Your task to perform on an android device: What's the weather going to be tomorrow? Image 0: 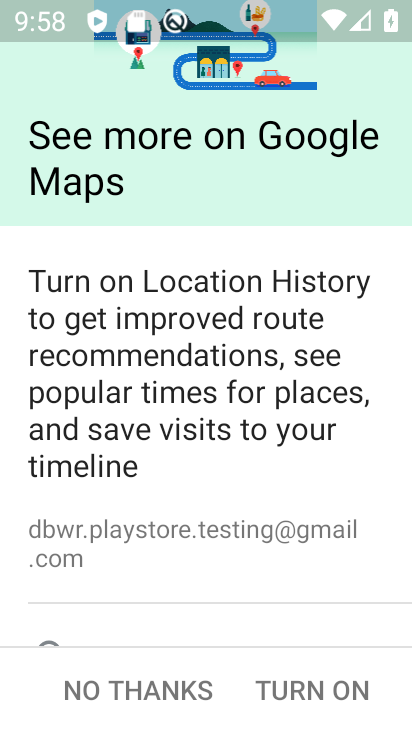
Step 0: press home button
Your task to perform on an android device: What's the weather going to be tomorrow? Image 1: 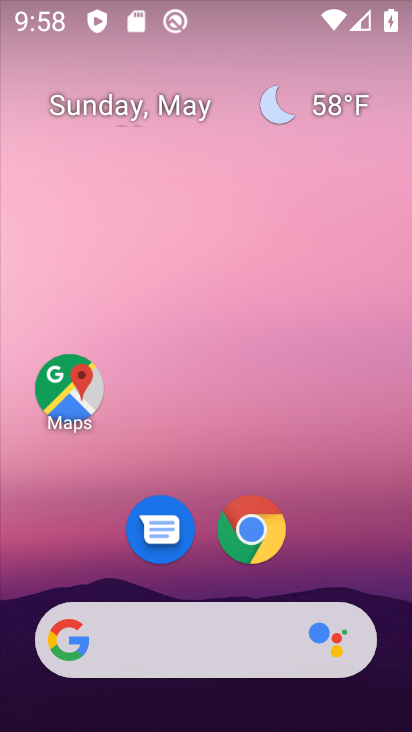
Step 1: drag from (182, 580) to (230, 3)
Your task to perform on an android device: What's the weather going to be tomorrow? Image 2: 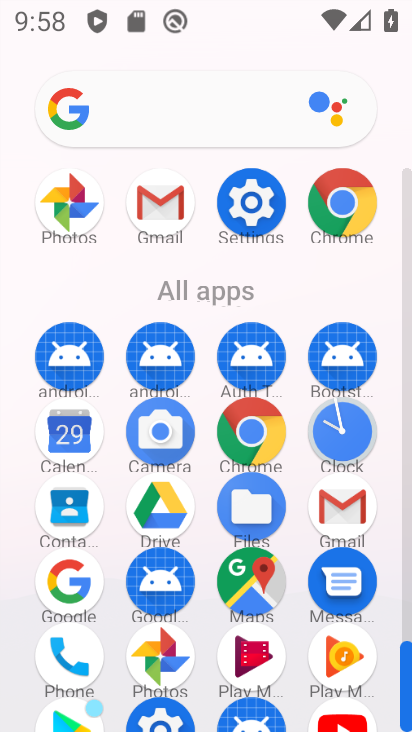
Step 2: click (201, 124)
Your task to perform on an android device: What's the weather going to be tomorrow? Image 3: 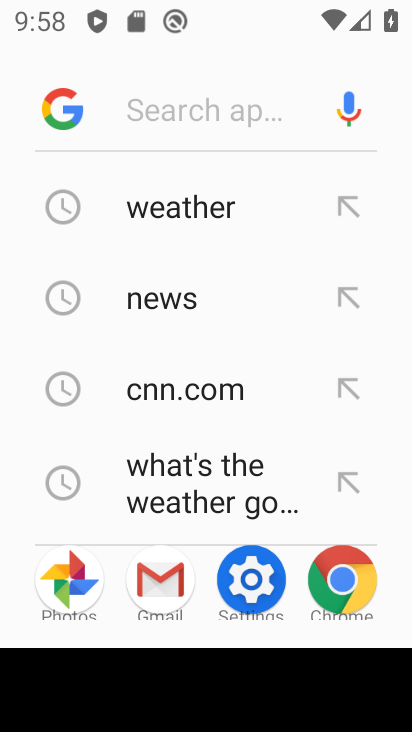
Step 3: click (192, 186)
Your task to perform on an android device: What's the weather going to be tomorrow? Image 4: 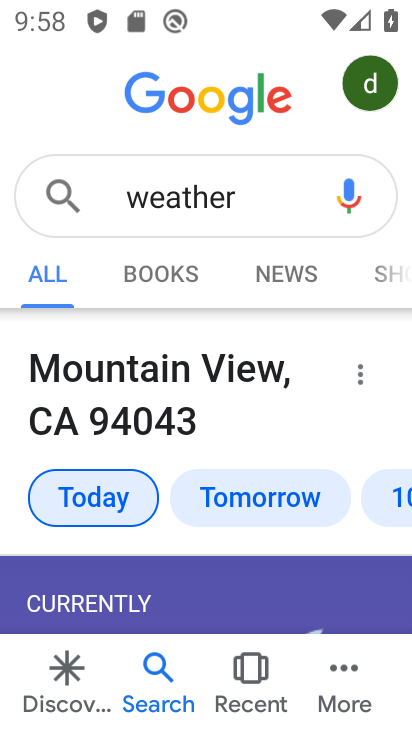
Step 4: click (233, 494)
Your task to perform on an android device: What's the weather going to be tomorrow? Image 5: 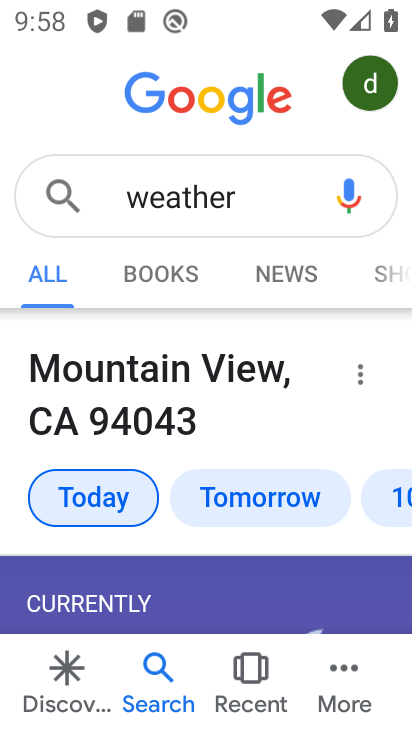
Step 5: click (278, 500)
Your task to perform on an android device: What's the weather going to be tomorrow? Image 6: 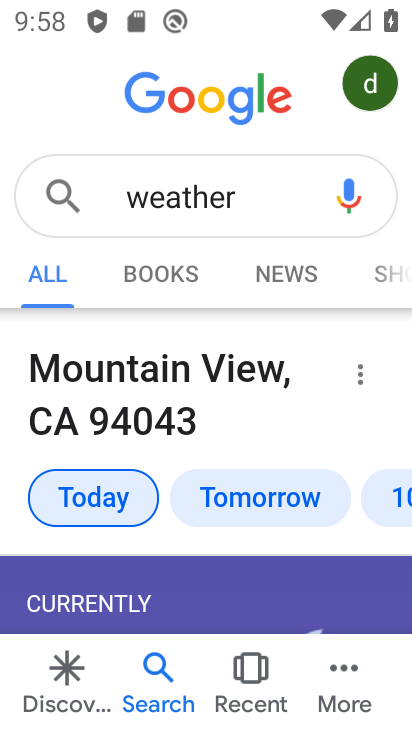
Step 6: drag from (272, 524) to (254, 363)
Your task to perform on an android device: What's the weather going to be tomorrow? Image 7: 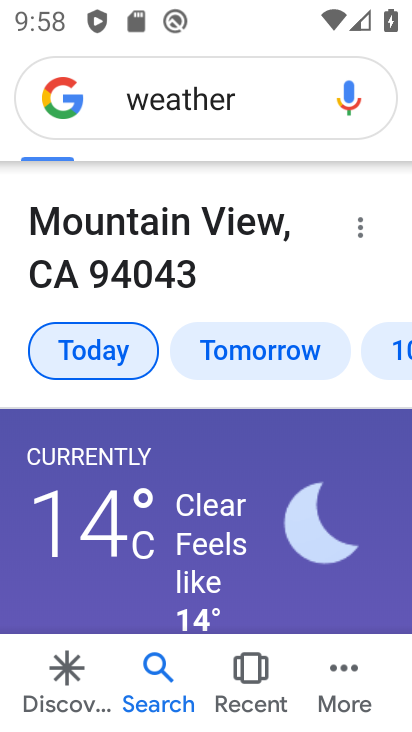
Step 7: click (253, 355)
Your task to perform on an android device: What's the weather going to be tomorrow? Image 8: 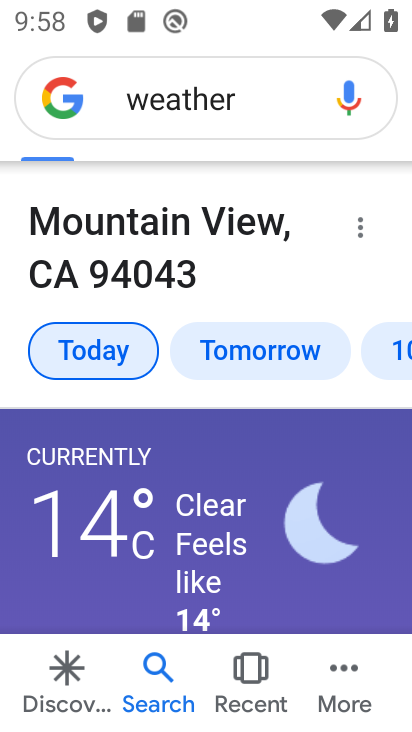
Step 8: click (254, 364)
Your task to perform on an android device: What's the weather going to be tomorrow? Image 9: 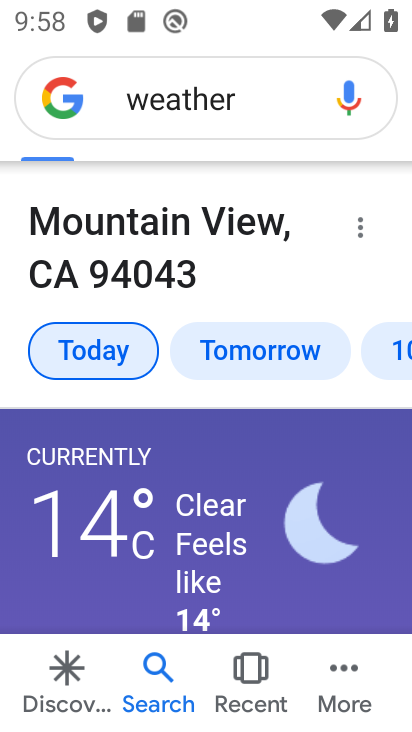
Step 9: click (260, 351)
Your task to perform on an android device: What's the weather going to be tomorrow? Image 10: 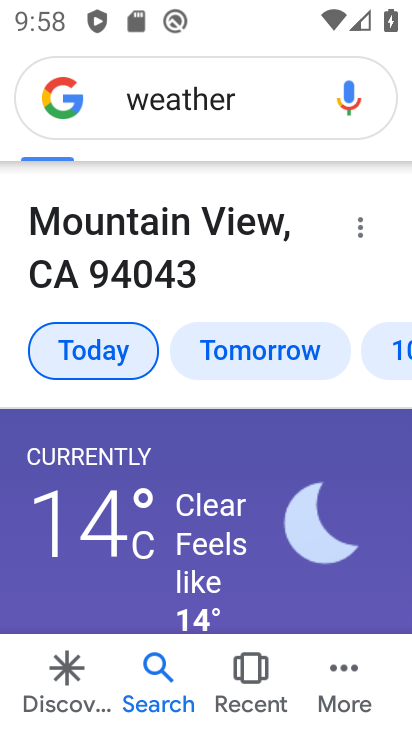
Step 10: click (266, 339)
Your task to perform on an android device: What's the weather going to be tomorrow? Image 11: 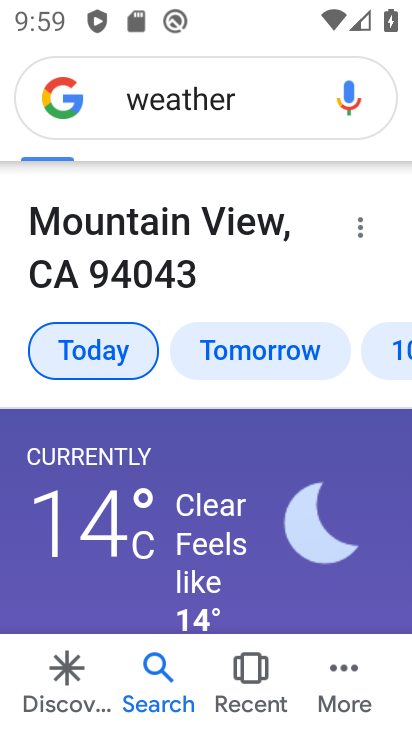
Step 11: click (266, 341)
Your task to perform on an android device: What's the weather going to be tomorrow? Image 12: 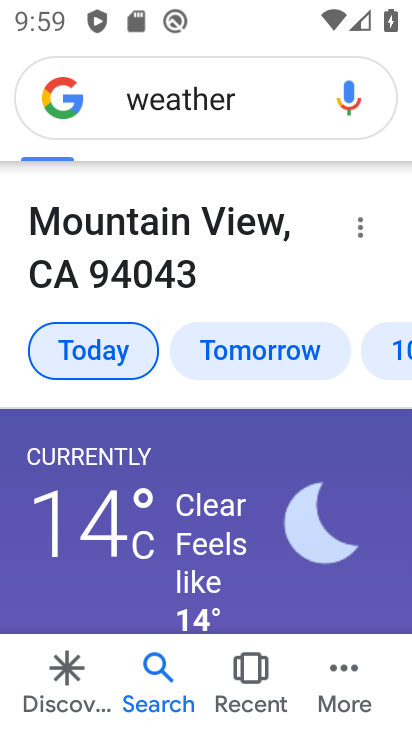
Step 12: click (267, 348)
Your task to perform on an android device: What's the weather going to be tomorrow? Image 13: 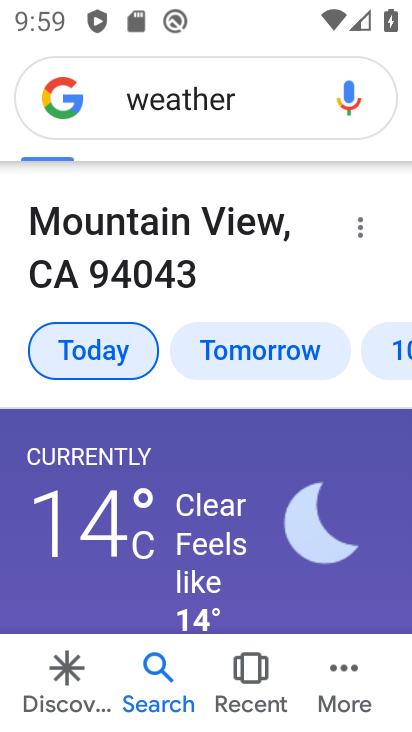
Step 13: task complete